Your task to perform on an android device: see creations saved in the google photos Image 0: 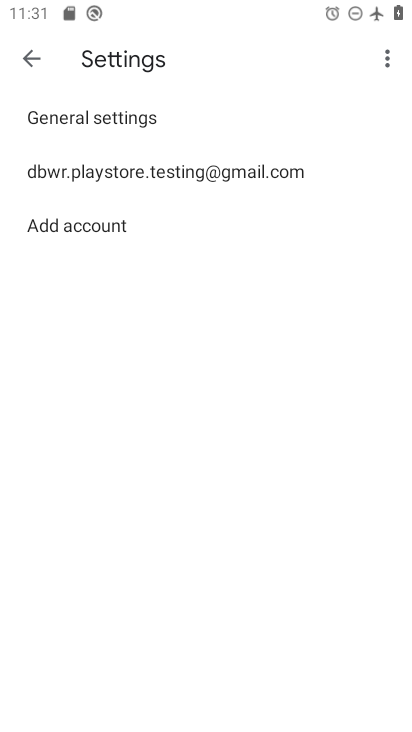
Step 0: press home button
Your task to perform on an android device: see creations saved in the google photos Image 1: 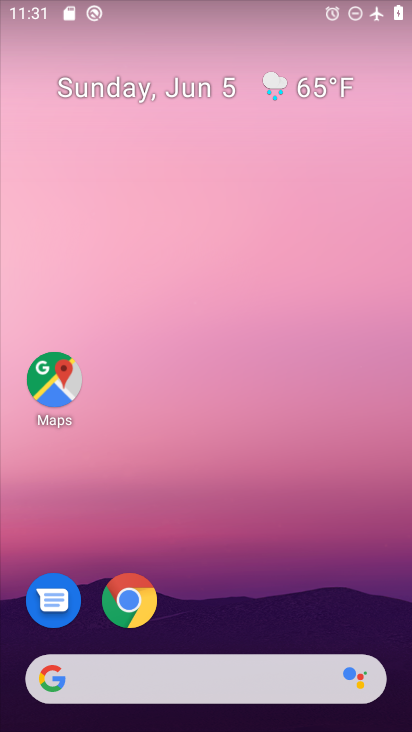
Step 1: drag from (311, 504) to (260, 0)
Your task to perform on an android device: see creations saved in the google photos Image 2: 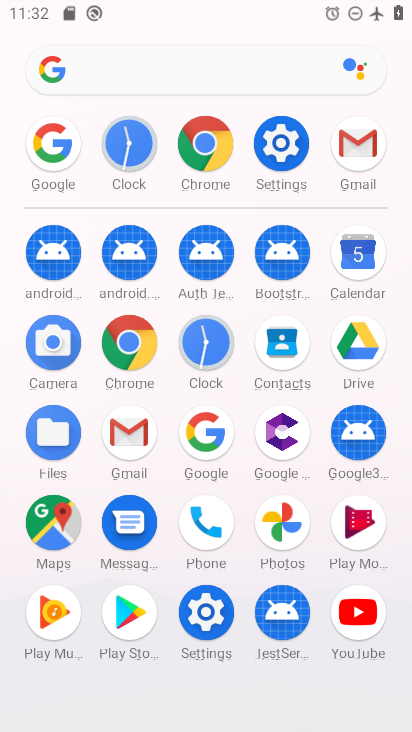
Step 2: click (291, 510)
Your task to perform on an android device: see creations saved in the google photos Image 3: 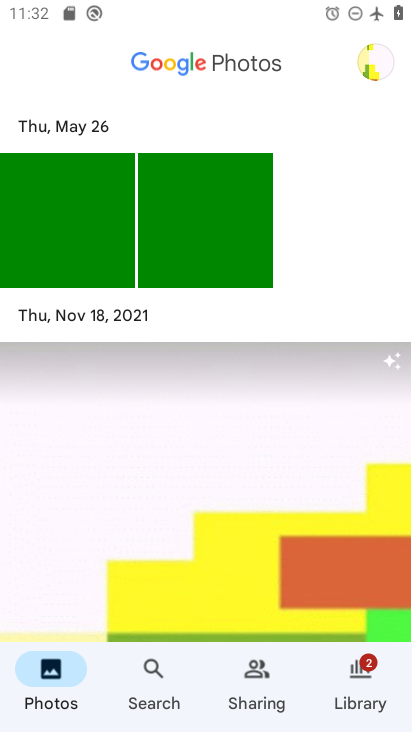
Step 3: click (147, 668)
Your task to perform on an android device: see creations saved in the google photos Image 4: 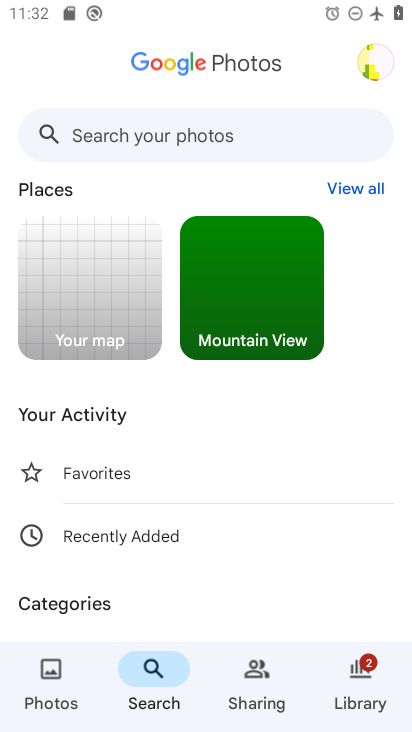
Step 4: drag from (129, 541) to (177, 202)
Your task to perform on an android device: see creations saved in the google photos Image 5: 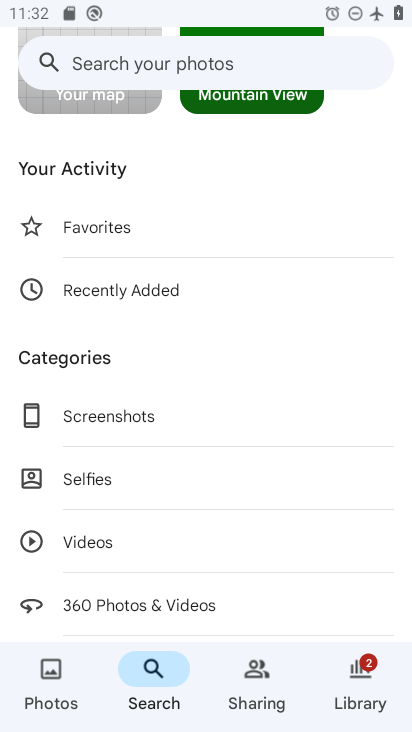
Step 5: drag from (143, 616) to (160, 196)
Your task to perform on an android device: see creations saved in the google photos Image 6: 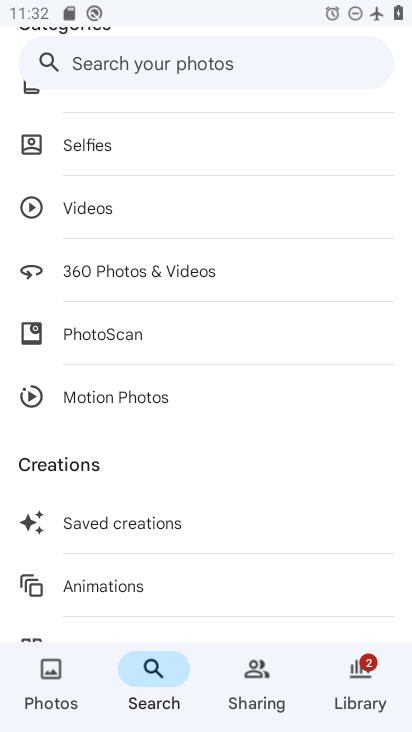
Step 6: click (143, 515)
Your task to perform on an android device: see creations saved in the google photos Image 7: 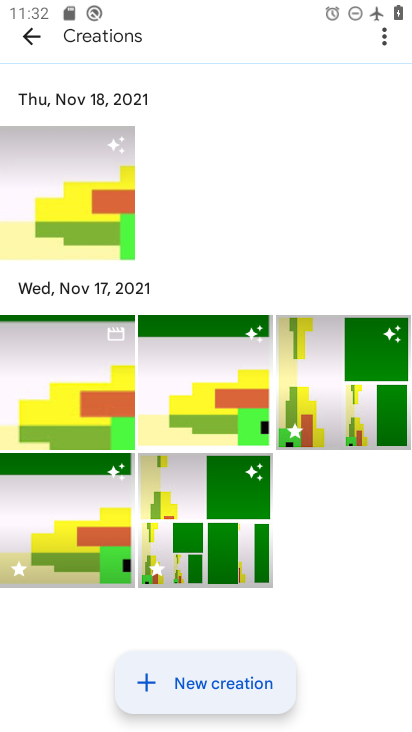
Step 7: task complete